Your task to perform on an android device: turn off smart reply in the gmail app Image 0: 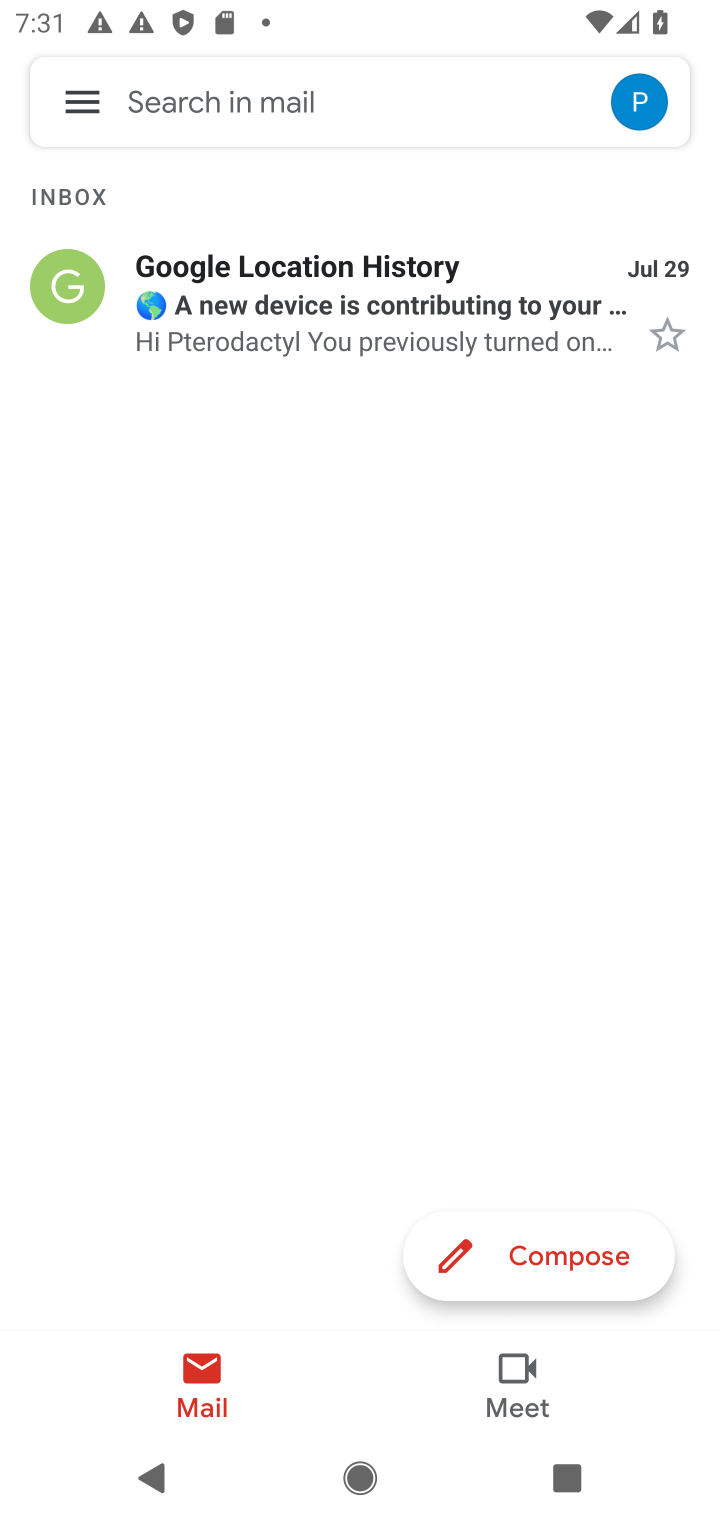
Step 0: press home button
Your task to perform on an android device: turn off smart reply in the gmail app Image 1: 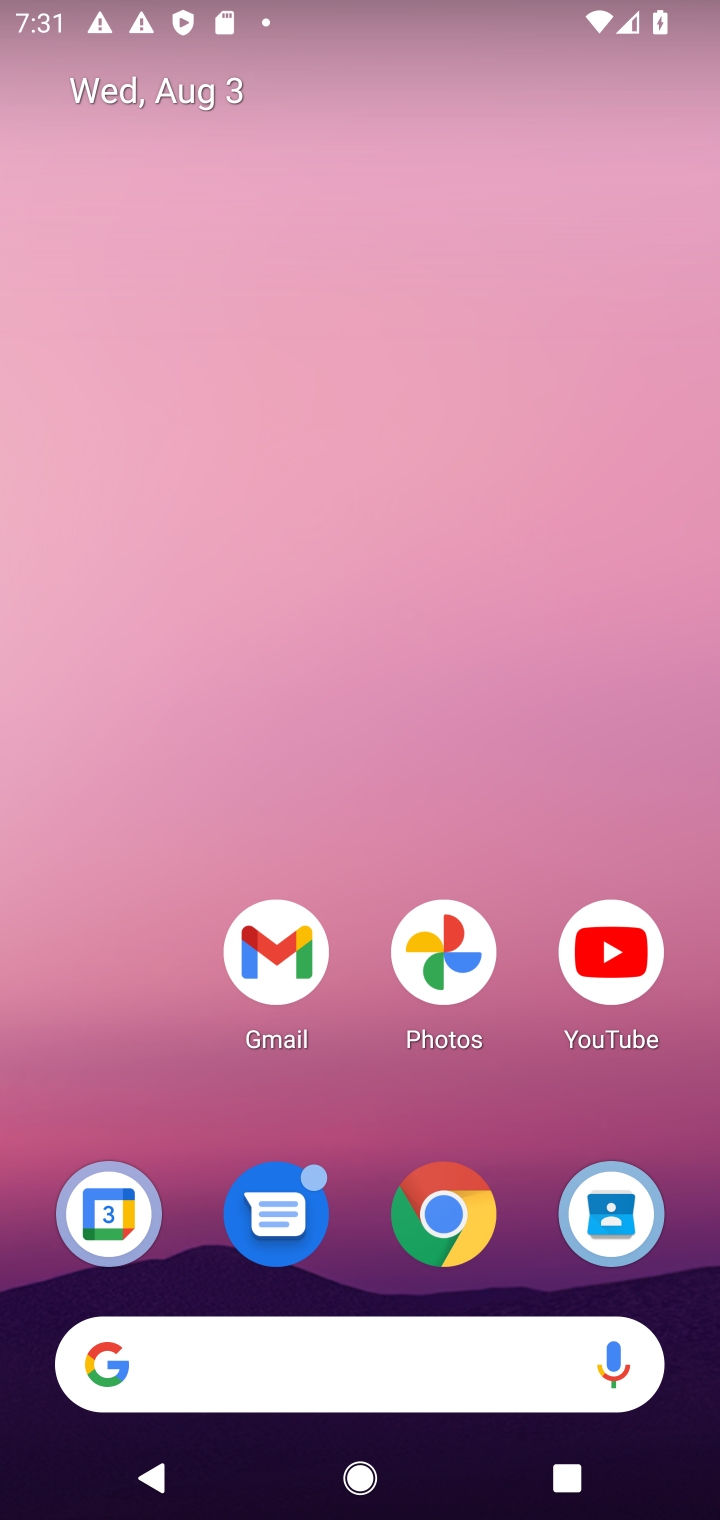
Step 1: drag from (377, 952) to (377, 124)
Your task to perform on an android device: turn off smart reply in the gmail app Image 2: 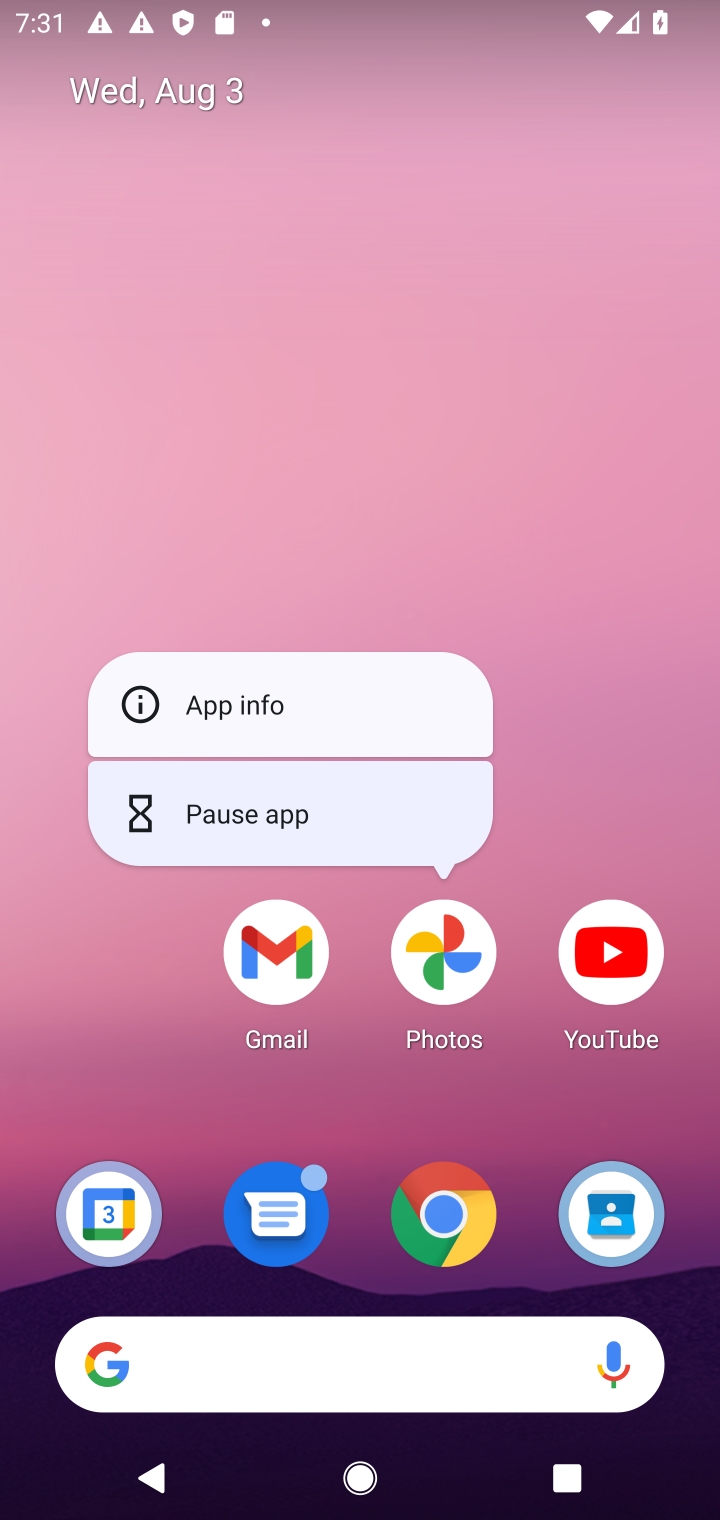
Step 2: click (250, 987)
Your task to perform on an android device: turn off smart reply in the gmail app Image 3: 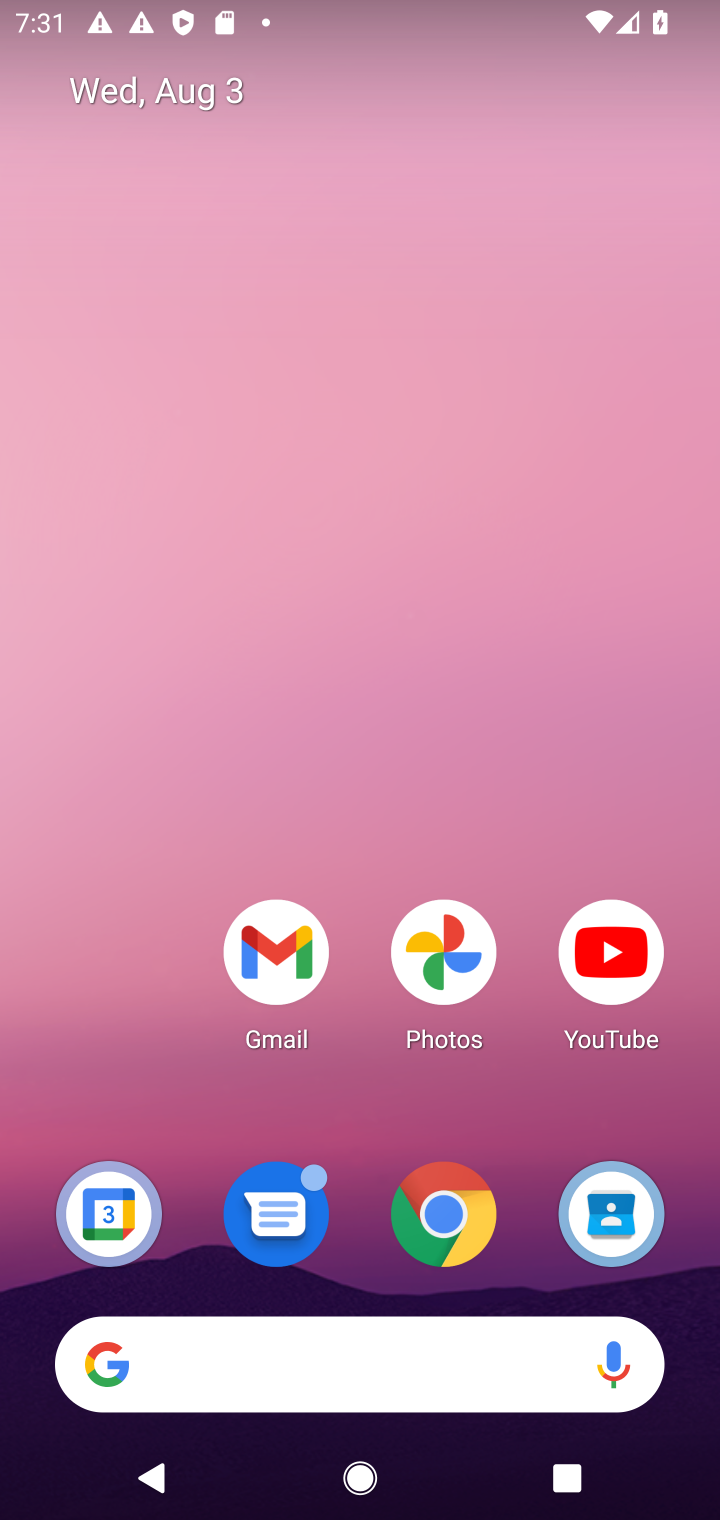
Step 3: click (289, 952)
Your task to perform on an android device: turn off smart reply in the gmail app Image 4: 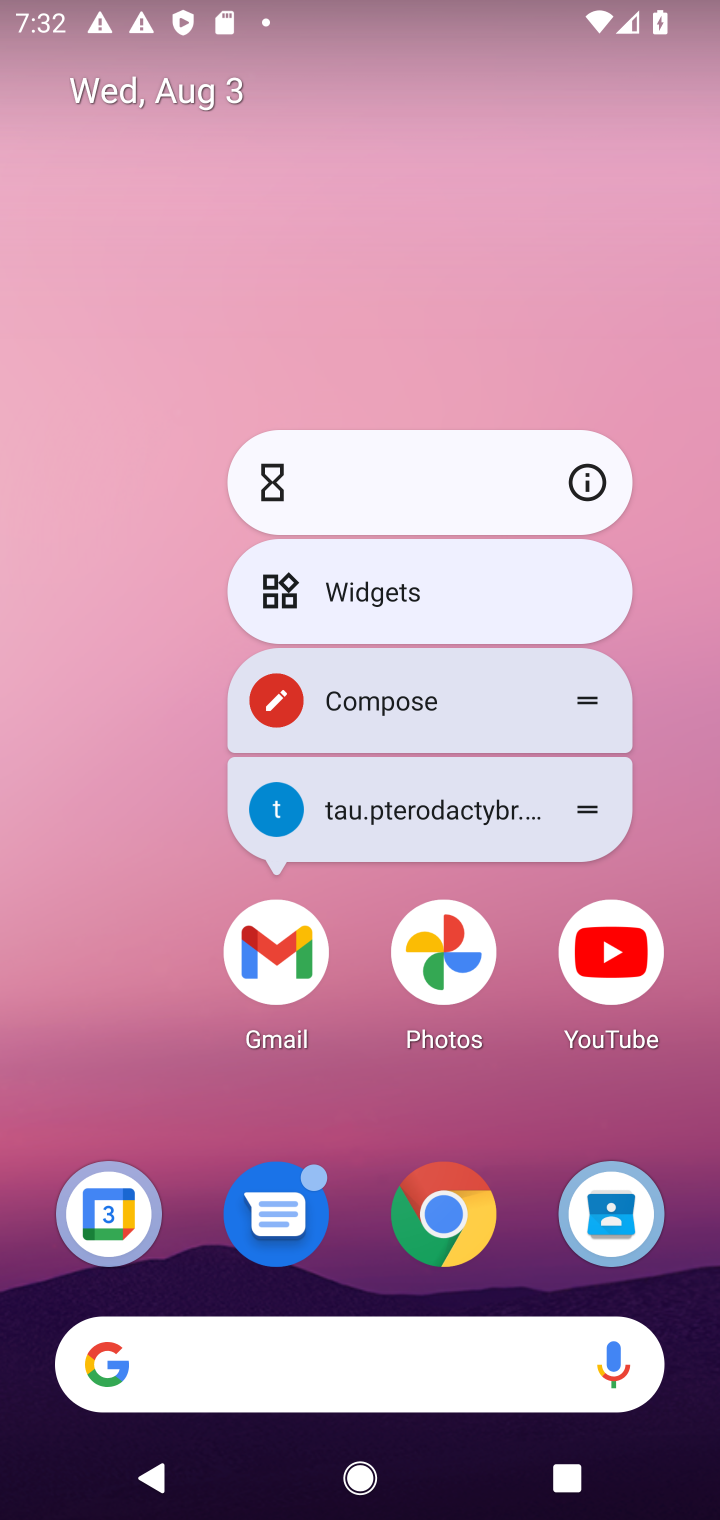
Step 4: click (286, 980)
Your task to perform on an android device: turn off smart reply in the gmail app Image 5: 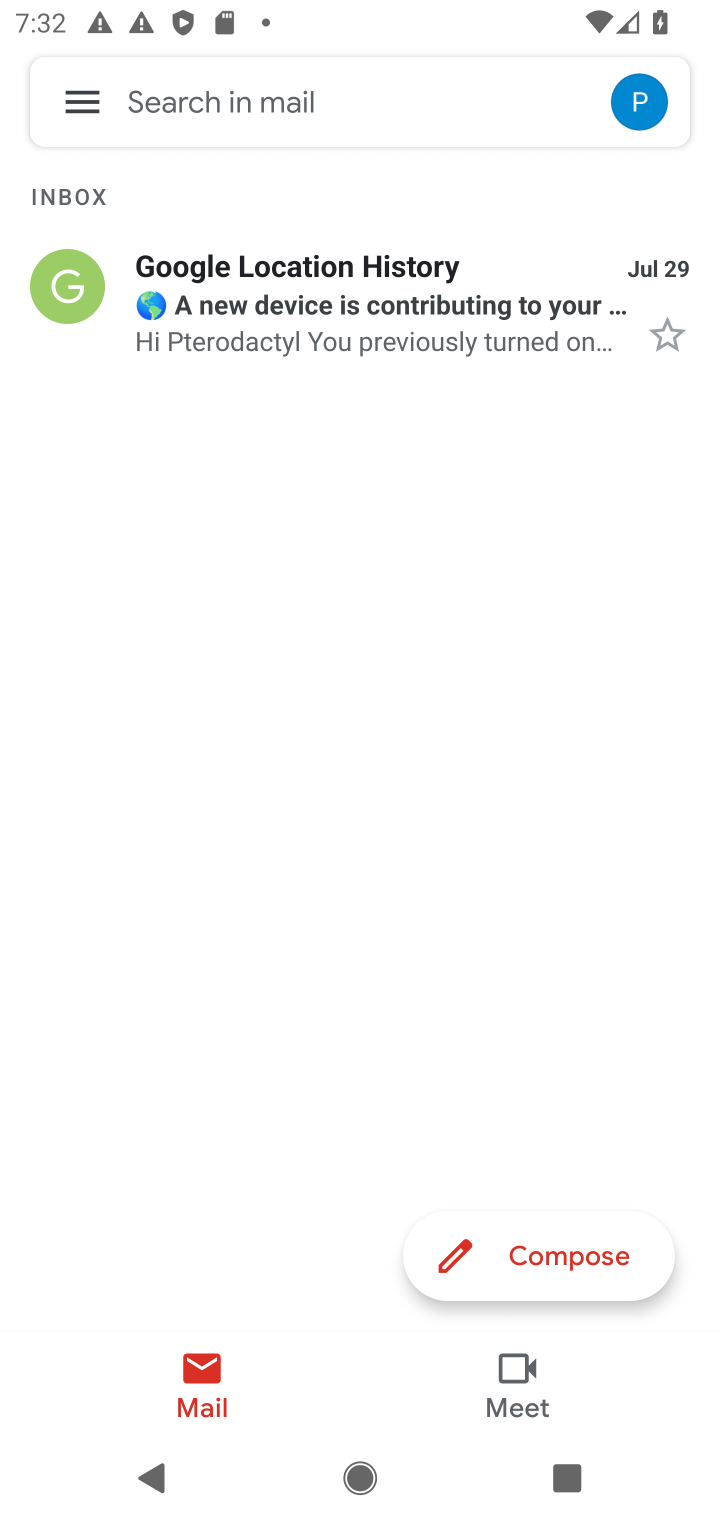
Step 5: click (83, 105)
Your task to perform on an android device: turn off smart reply in the gmail app Image 6: 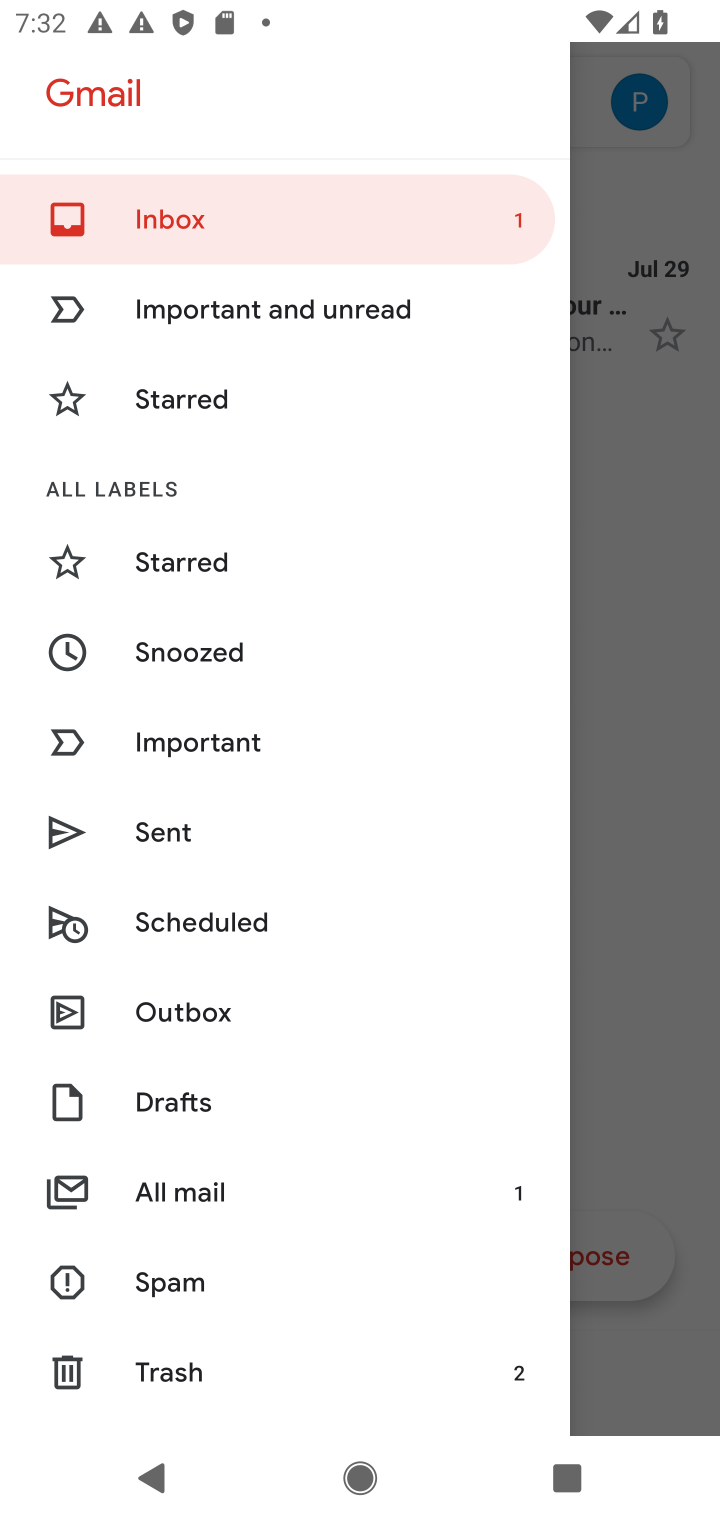
Step 6: drag from (203, 1370) to (201, 628)
Your task to perform on an android device: turn off smart reply in the gmail app Image 7: 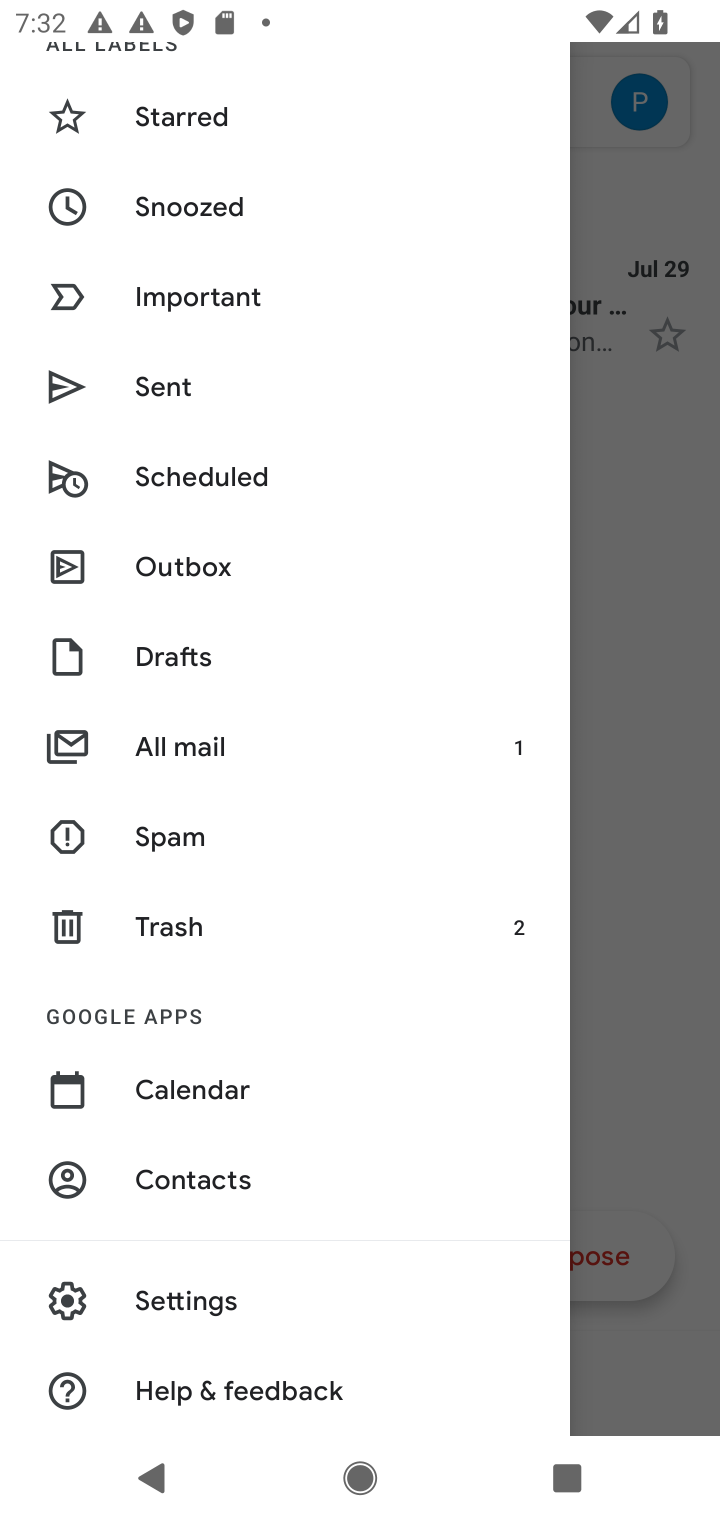
Step 7: click (192, 1309)
Your task to perform on an android device: turn off smart reply in the gmail app Image 8: 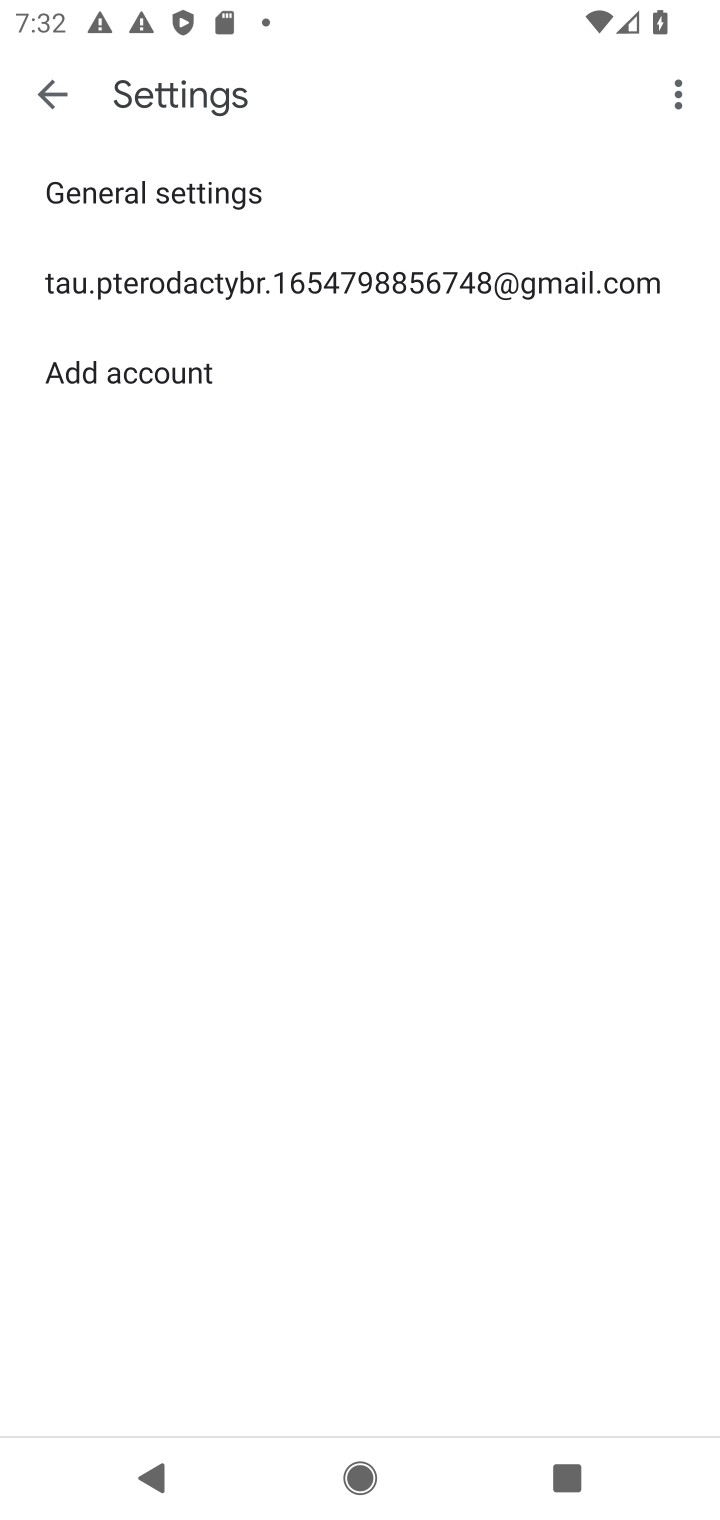
Step 8: click (175, 279)
Your task to perform on an android device: turn off smart reply in the gmail app Image 9: 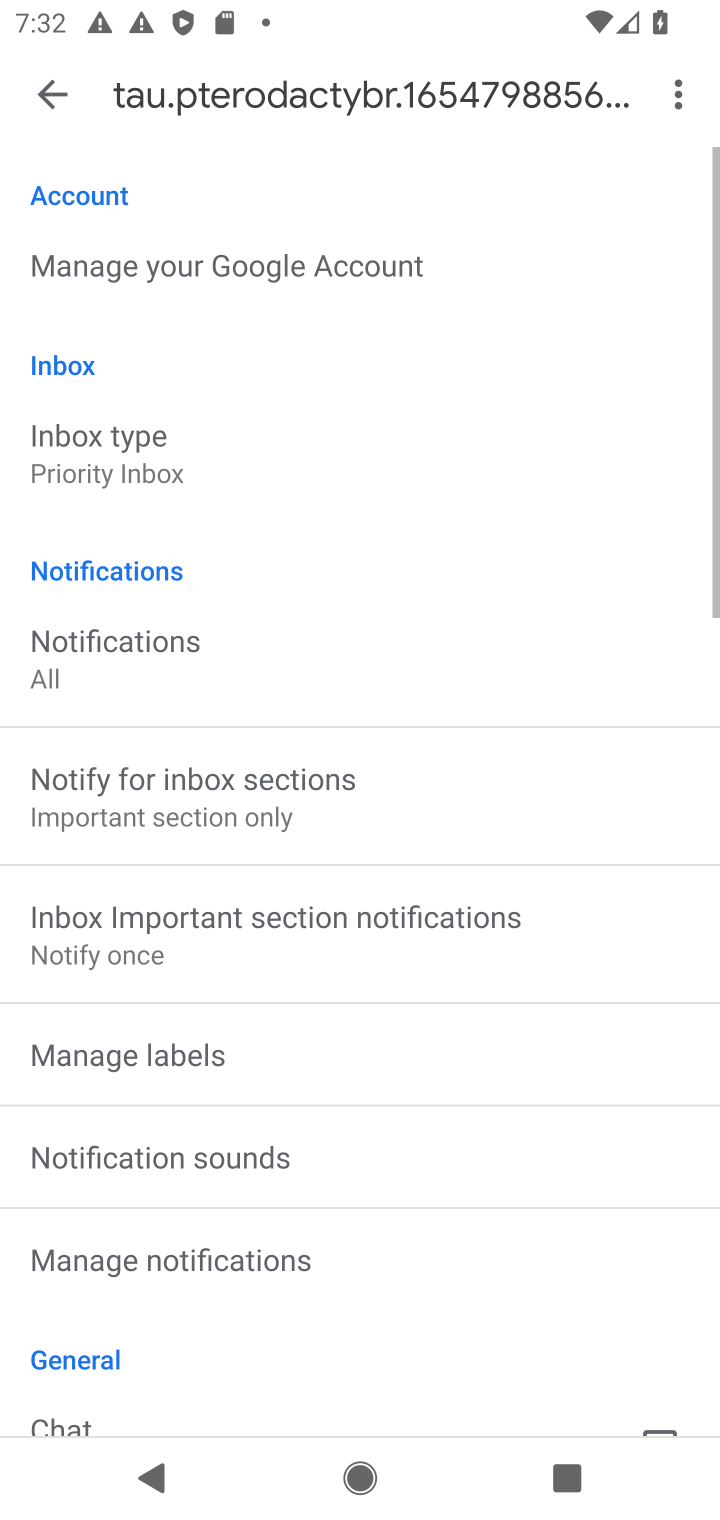
Step 9: click (105, 460)
Your task to perform on an android device: turn off smart reply in the gmail app Image 10: 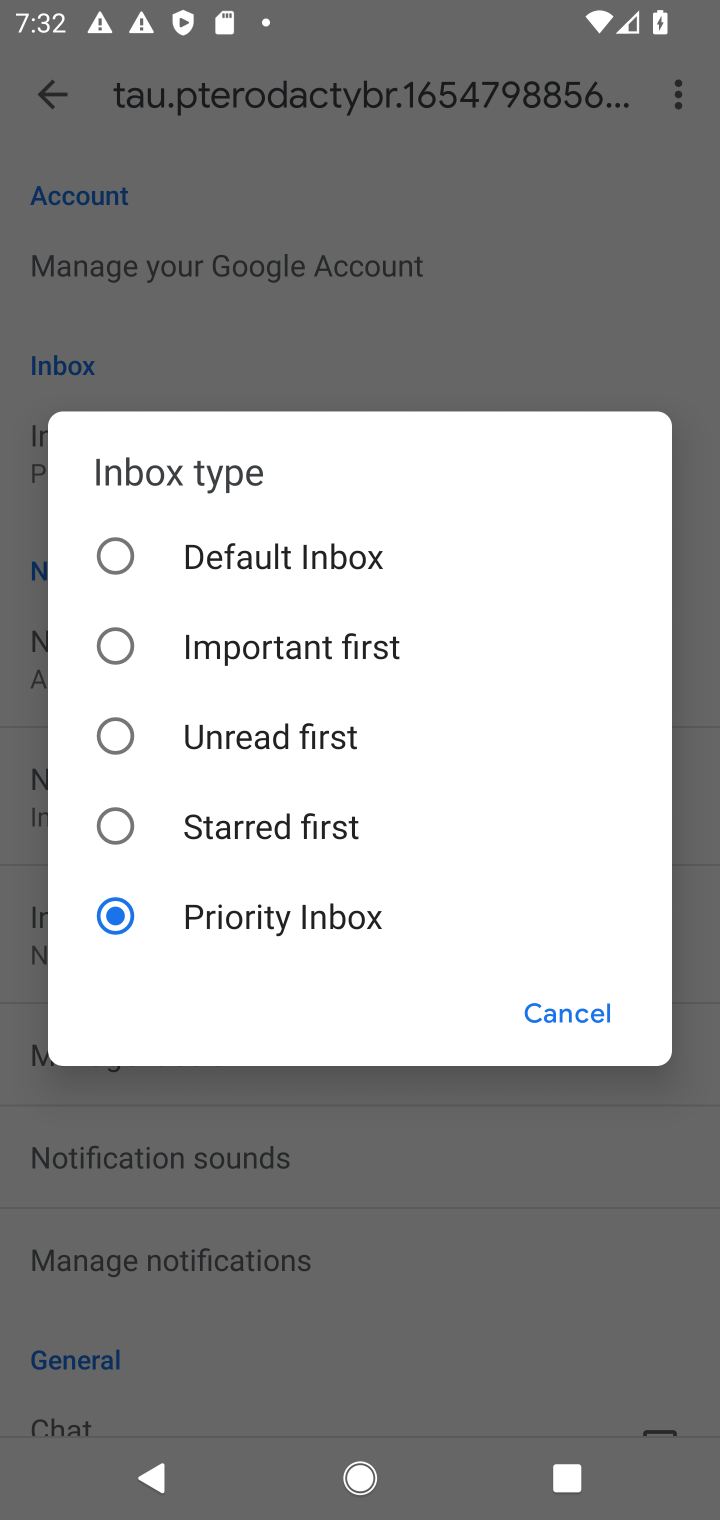
Step 10: click (572, 1015)
Your task to perform on an android device: turn off smart reply in the gmail app Image 11: 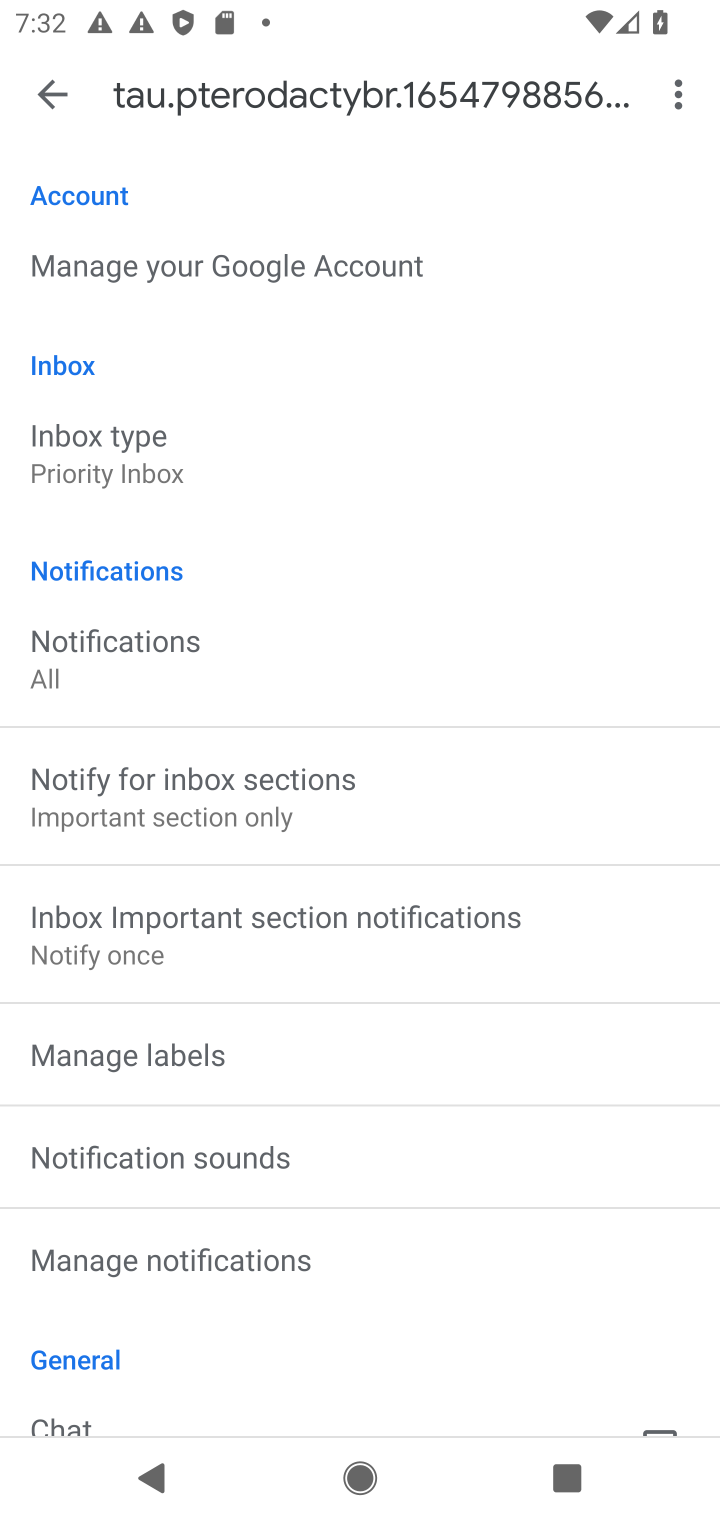
Step 11: drag from (239, 1251) to (228, 115)
Your task to perform on an android device: turn off smart reply in the gmail app Image 12: 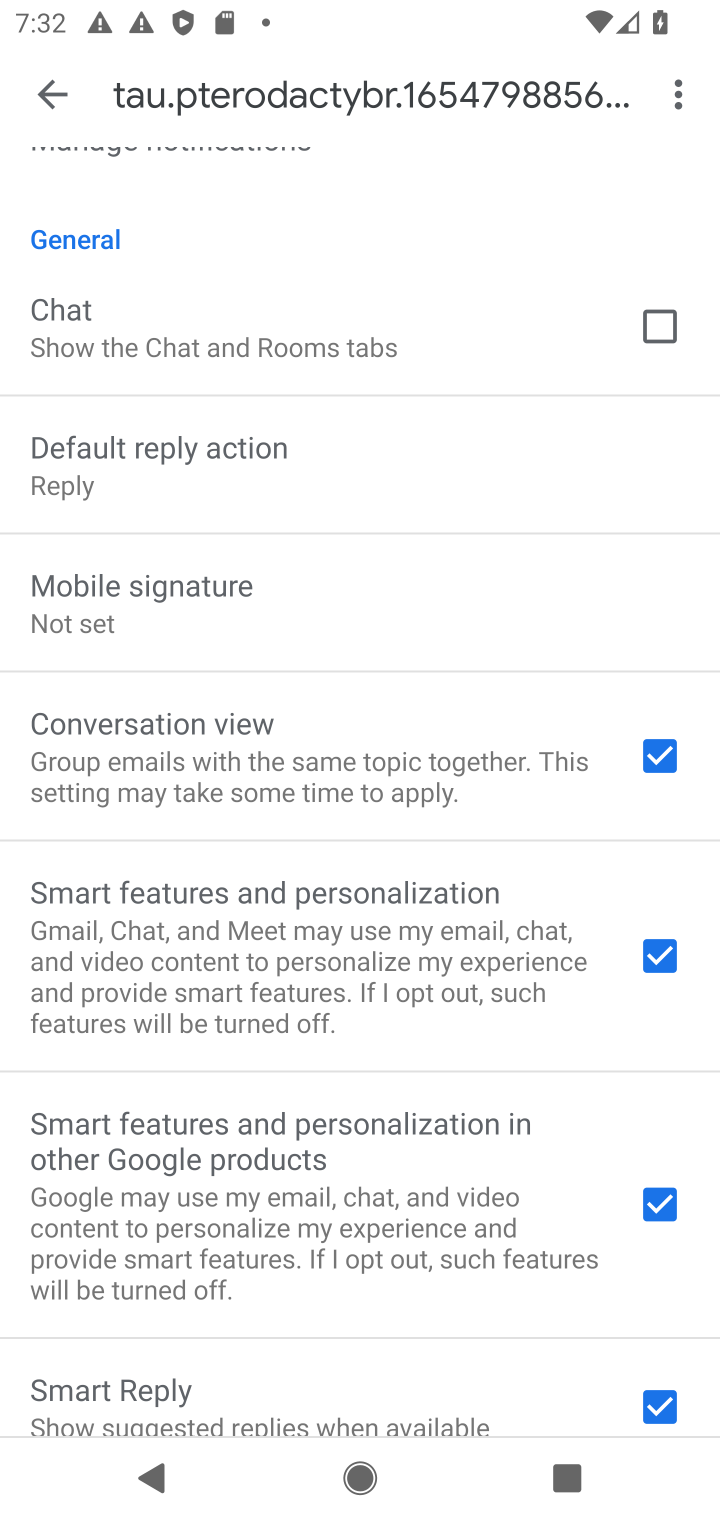
Step 12: drag from (175, 1259) to (136, 280)
Your task to perform on an android device: turn off smart reply in the gmail app Image 13: 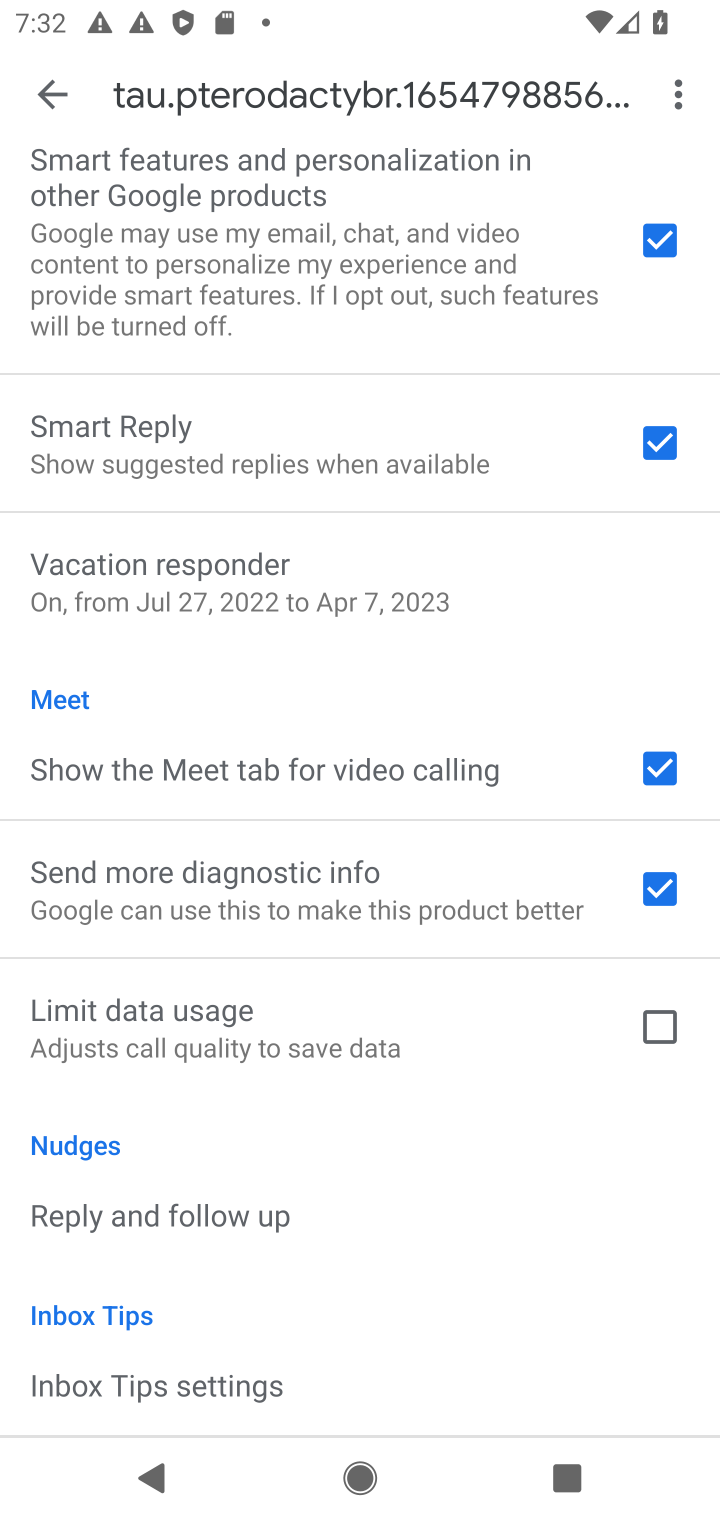
Step 13: click (664, 447)
Your task to perform on an android device: turn off smart reply in the gmail app Image 14: 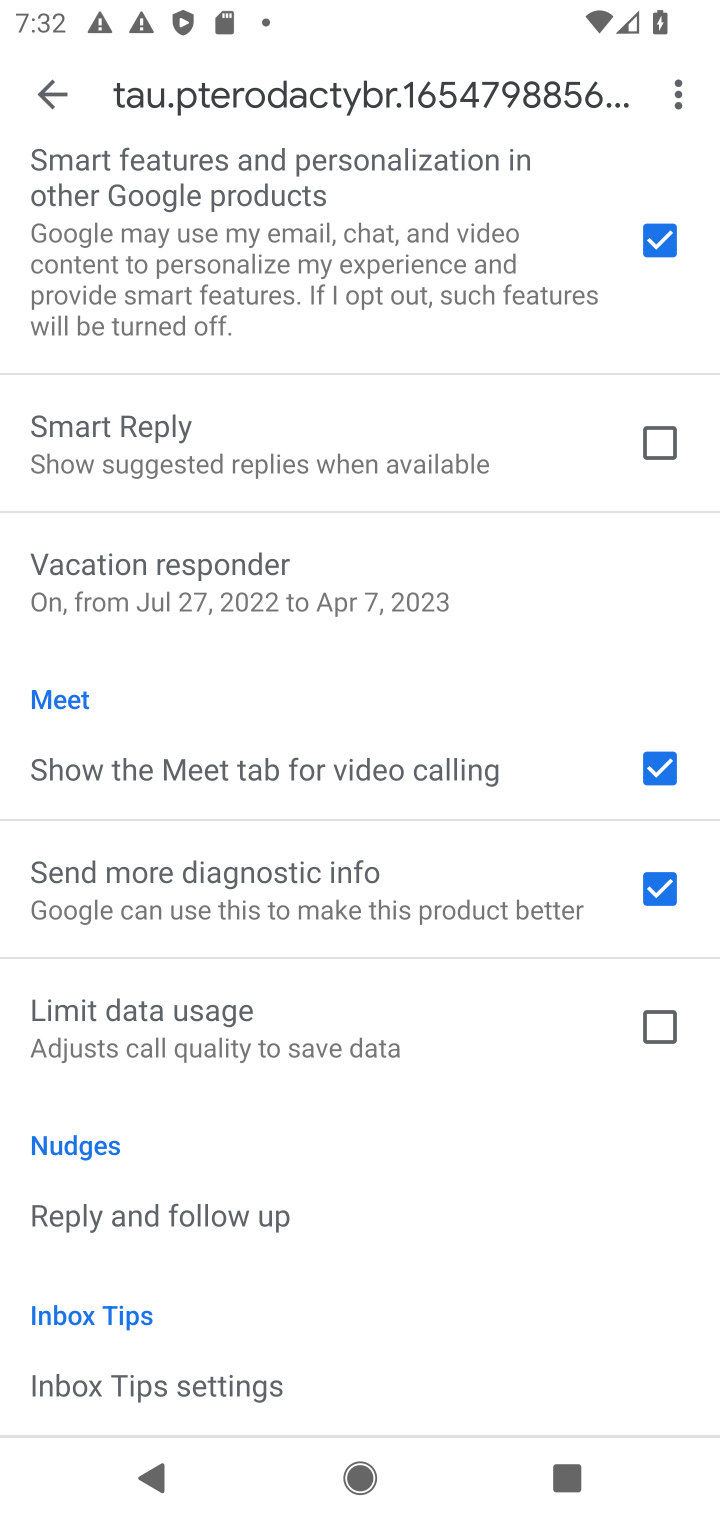
Step 14: task complete